Your task to perform on an android device: add a label to a message in the gmail app Image 0: 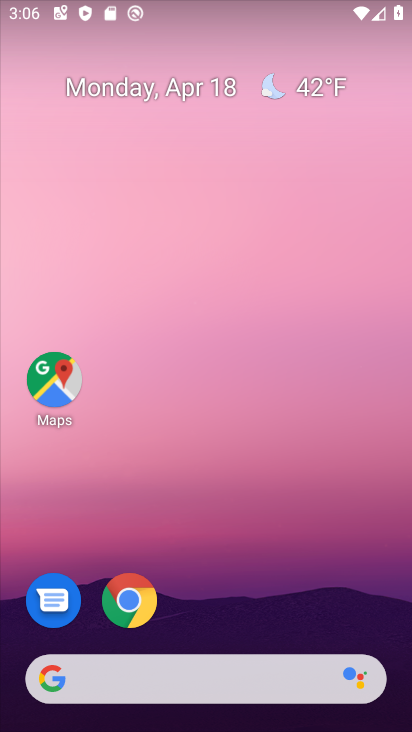
Step 0: drag from (140, 676) to (363, 100)
Your task to perform on an android device: add a label to a message in the gmail app Image 1: 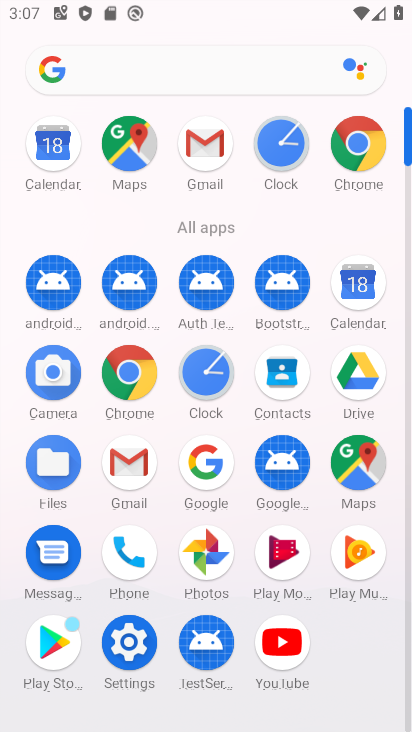
Step 1: click (211, 158)
Your task to perform on an android device: add a label to a message in the gmail app Image 2: 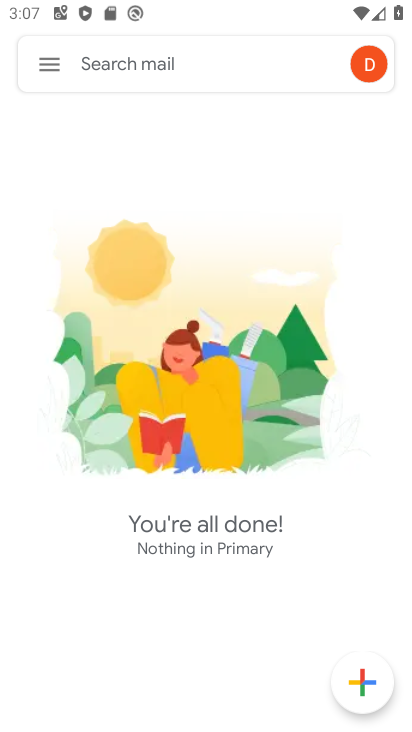
Step 2: task complete